Your task to perform on an android device: Open Yahoo.com Image 0: 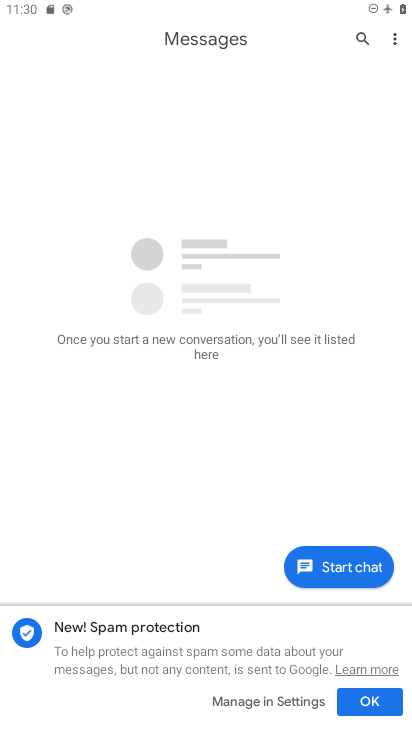
Step 0: press home button
Your task to perform on an android device: Open Yahoo.com Image 1: 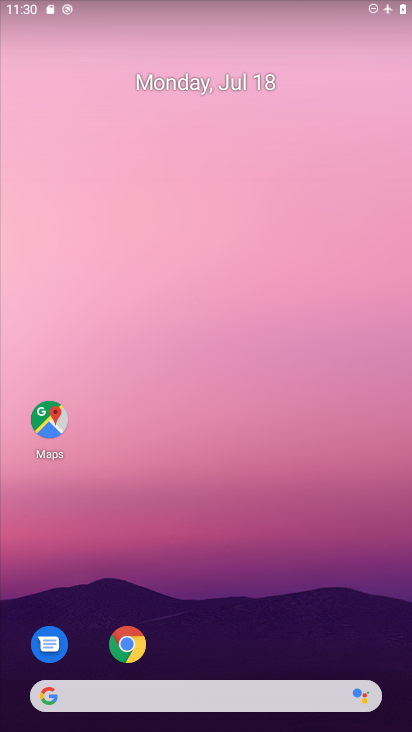
Step 1: drag from (190, 670) to (269, 84)
Your task to perform on an android device: Open Yahoo.com Image 2: 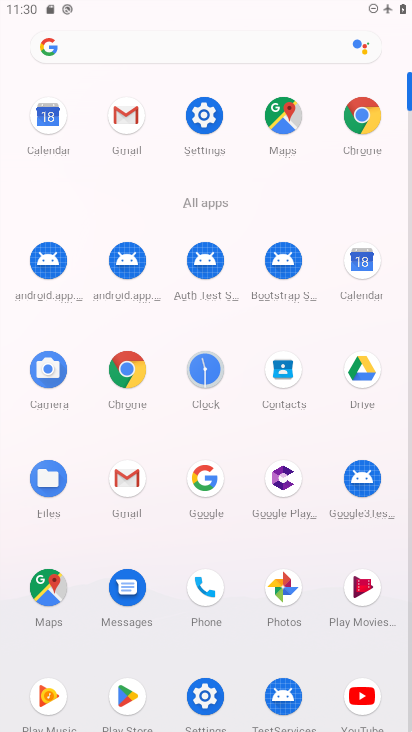
Step 2: click (125, 360)
Your task to perform on an android device: Open Yahoo.com Image 3: 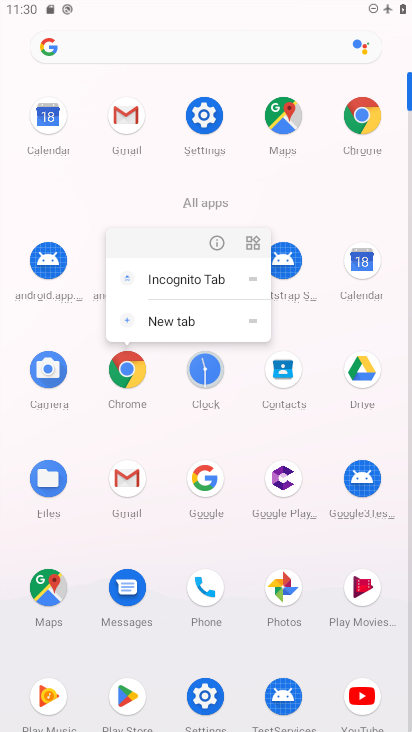
Step 3: click (121, 375)
Your task to perform on an android device: Open Yahoo.com Image 4: 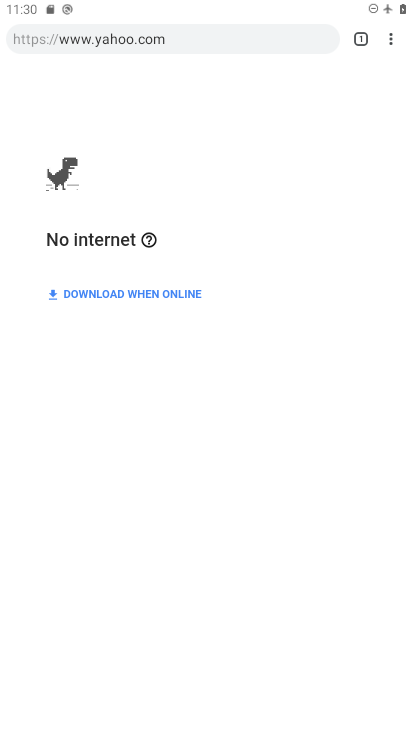
Step 4: task complete